Your task to perform on an android device: Turn off the flashlight Image 0: 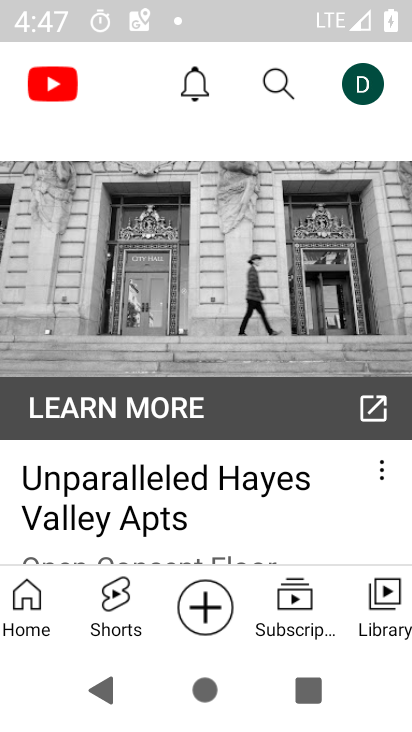
Step 0: press home button
Your task to perform on an android device: Turn off the flashlight Image 1: 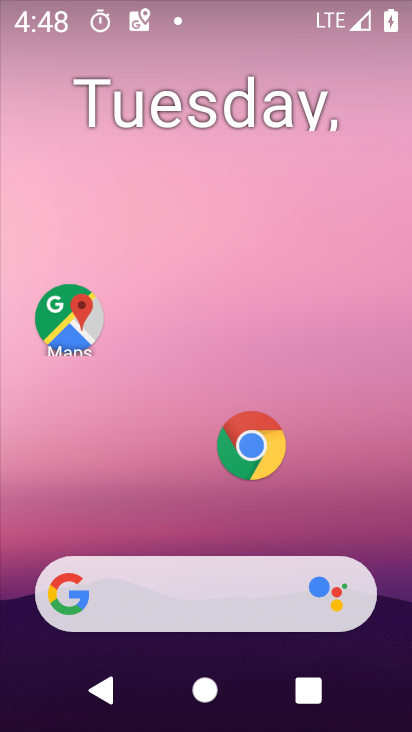
Step 1: drag from (220, 521) to (238, 55)
Your task to perform on an android device: Turn off the flashlight Image 2: 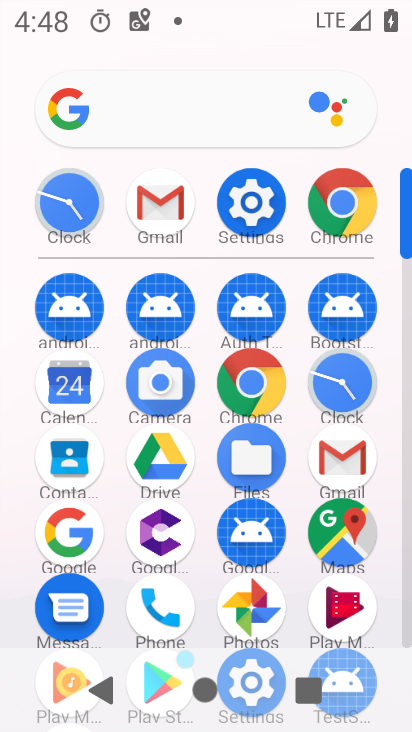
Step 2: click (263, 228)
Your task to perform on an android device: Turn off the flashlight Image 3: 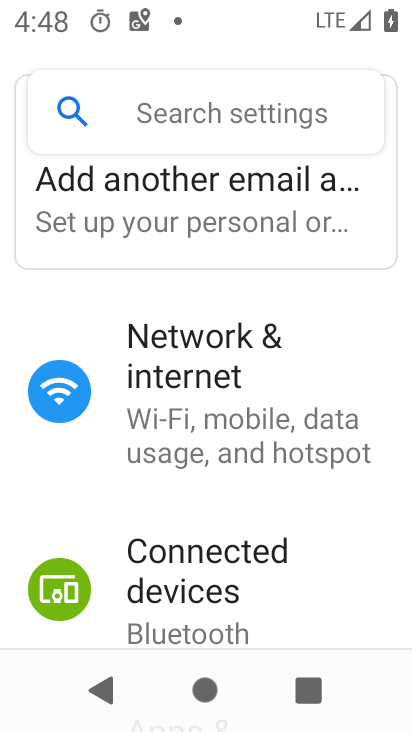
Step 3: click (193, 102)
Your task to perform on an android device: Turn off the flashlight Image 4: 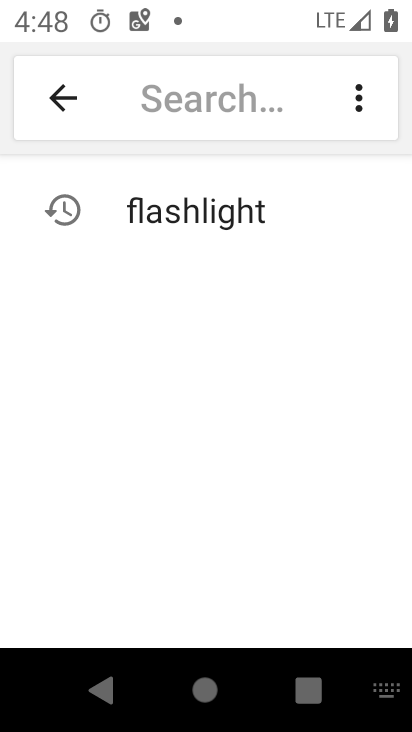
Step 4: type "flashlight"
Your task to perform on an android device: Turn off the flashlight Image 5: 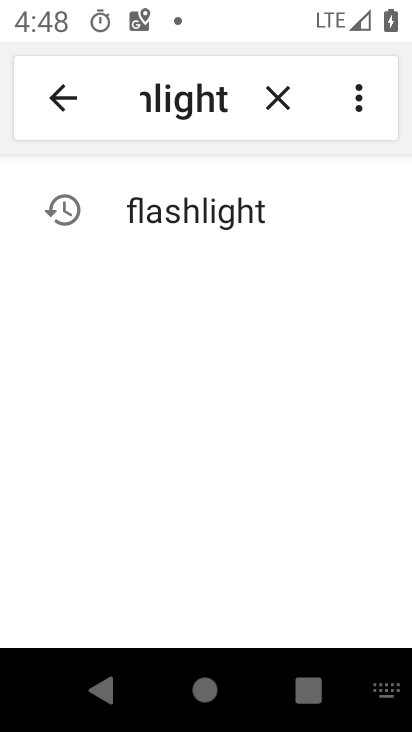
Step 5: click (199, 207)
Your task to perform on an android device: Turn off the flashlight Image 6: 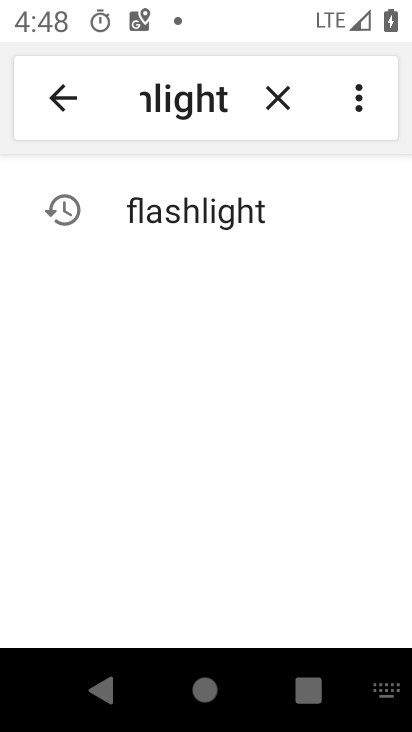
Step 6: click (212, 214)
Your task to perform on an android device: Turn off the flashlight Image 7: 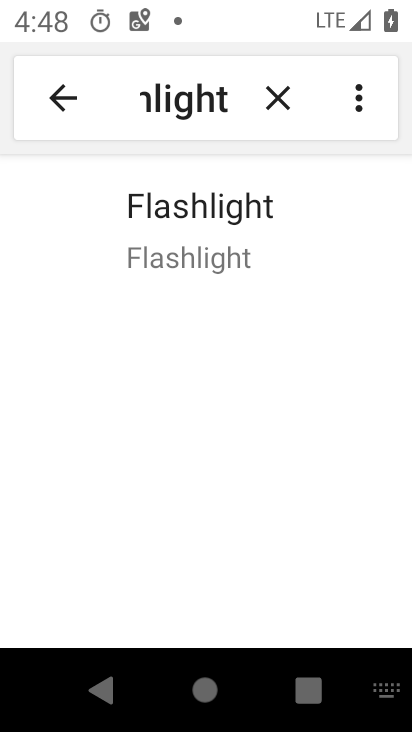
Step 7: task complete